Your task to perform on an android device: empty trash in the gmail app Image 0: 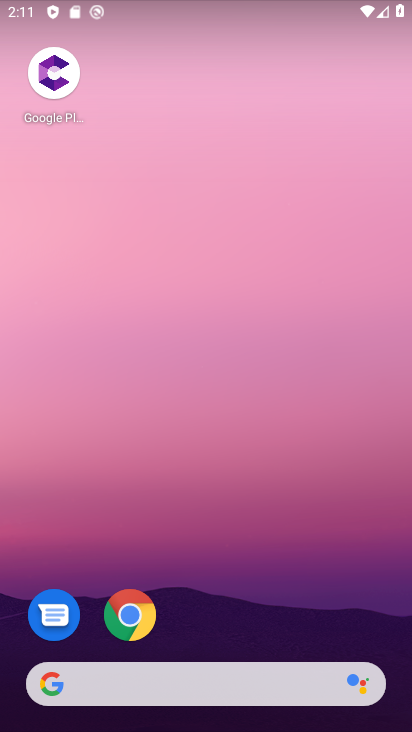
Step 0: drag from (244, 597) to (313, 141)
Your task to perform on an android device: empty trash in the gmail app Image 1: 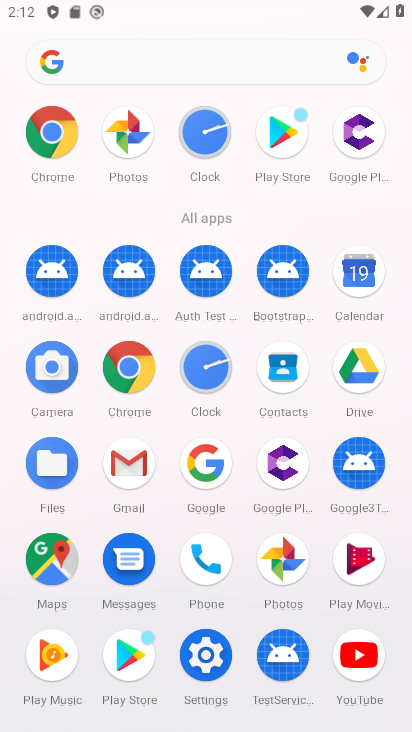
Step 1: click (124, 455)
Your task to perform on an android device: empty trash in the gmail app Image 2: 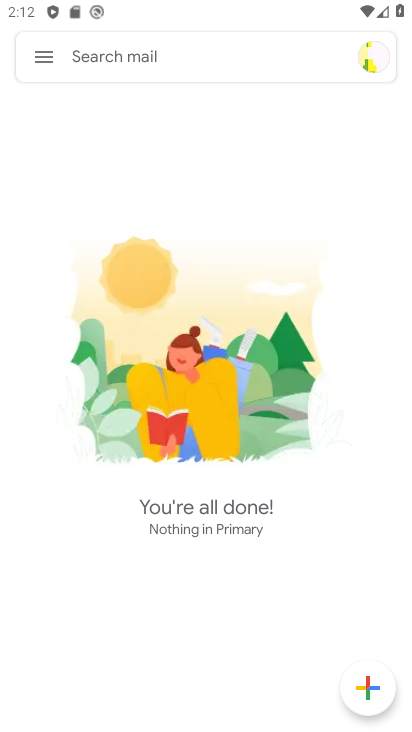
Step 2: click (37, 59)
Your task to perform on an android device: empty trash in the gmail app Image 3: 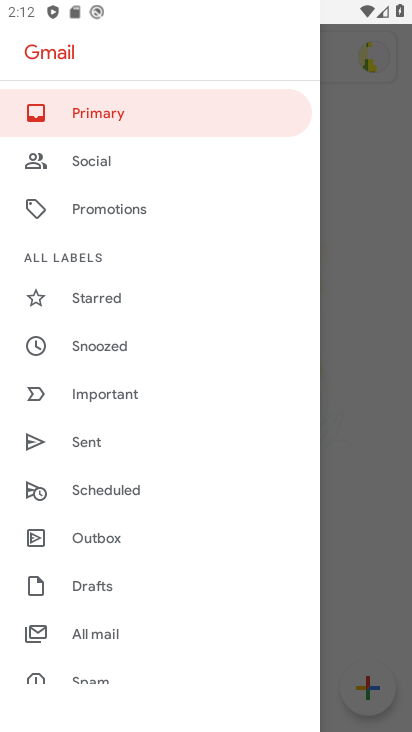
Step 3: drag from (157, 630) to (167, 253)
Your task to perform on an android device: empty trash in the gmail app Image 4: 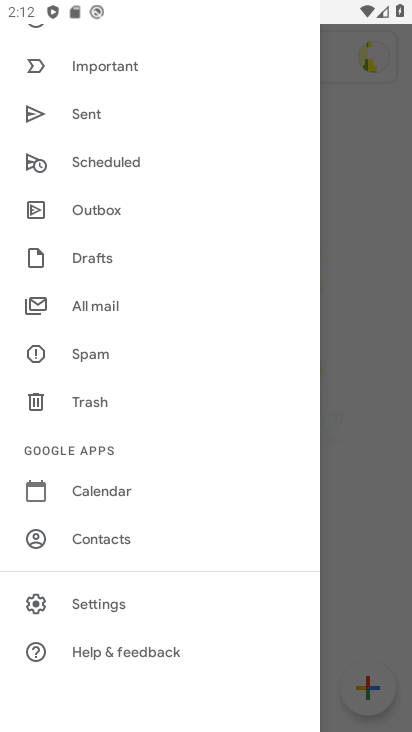
Step 4: click (92, 403)
Your task to perform on an android device: empty trash in the gmail app Image 5: 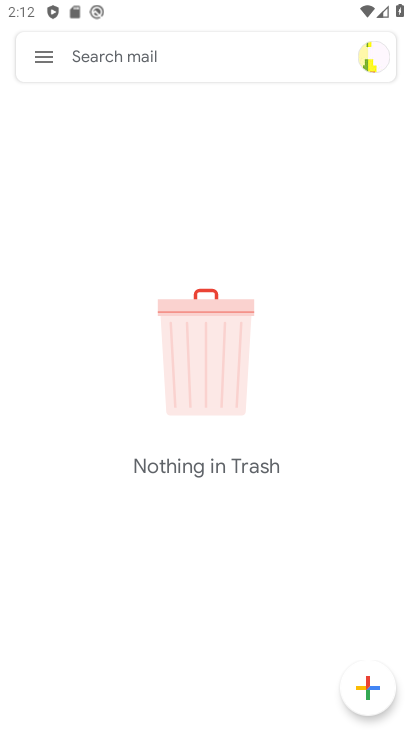
Step 5: task complete